Your task to perform on an android device: change the clock style Image 0: 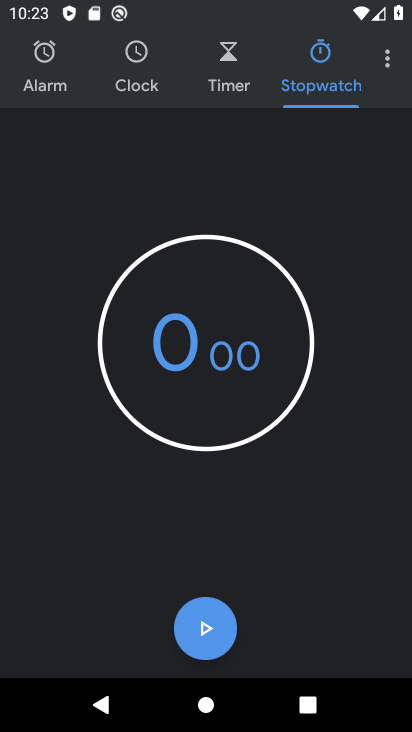
Step 0: click (395, 54)
Your task to perform on an android device: change the clock style Image 1: 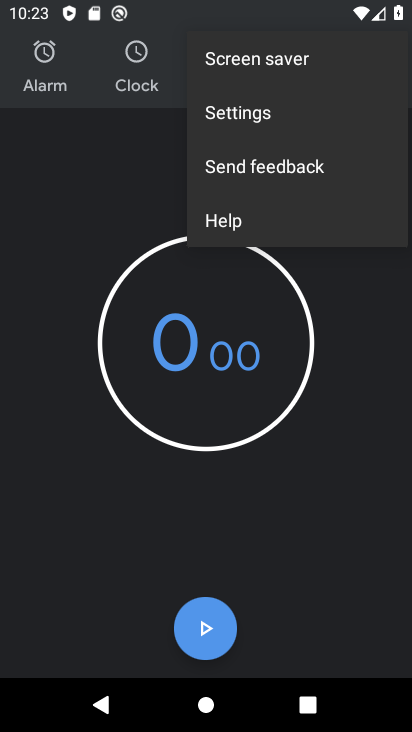
Step 1: click (256, 116)
Your task to perform on an android device: change the clock style Image 2: 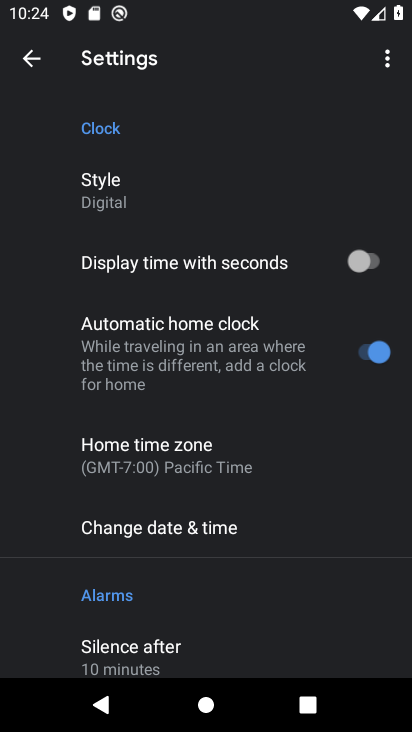
Step 2: click (135, 163)
Your task to perform on an android device: change the clock style Image 3: 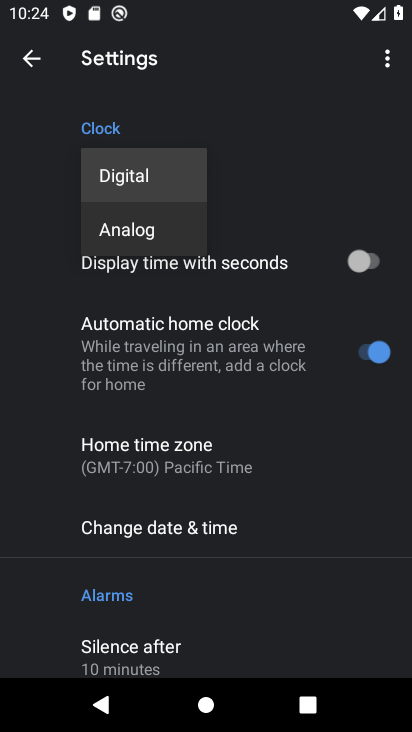
Step 3: click (156, 231)
Your task to perform on an android device: change the clock style Image 4: 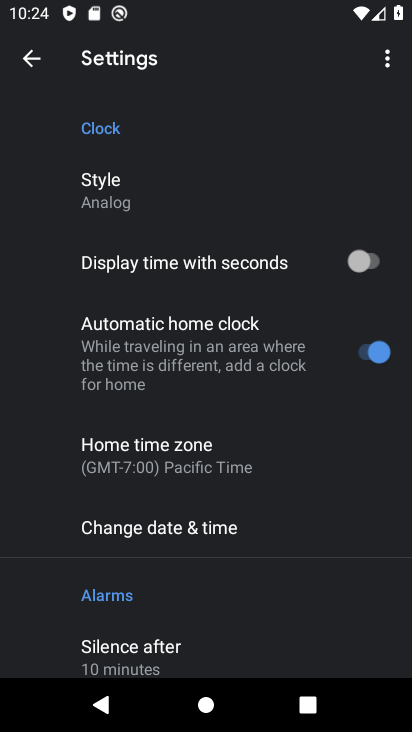
Step 4: task complete